Your task to perform on an android device: Go to Yahoo.com Image 0: 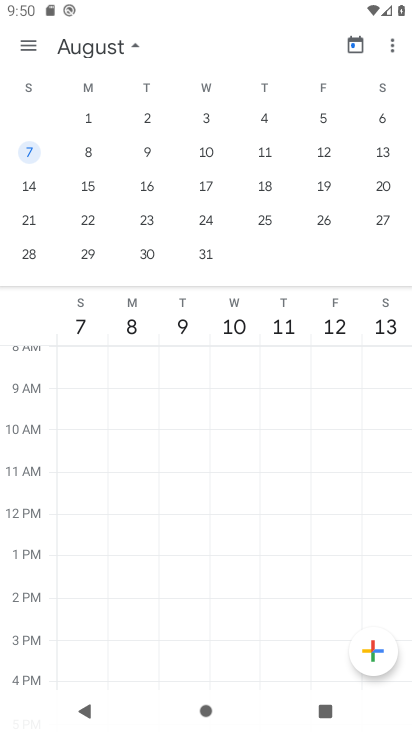
Step 0: press home button
Your task to perform on an android device: Go to Yahoo.com Image 1: 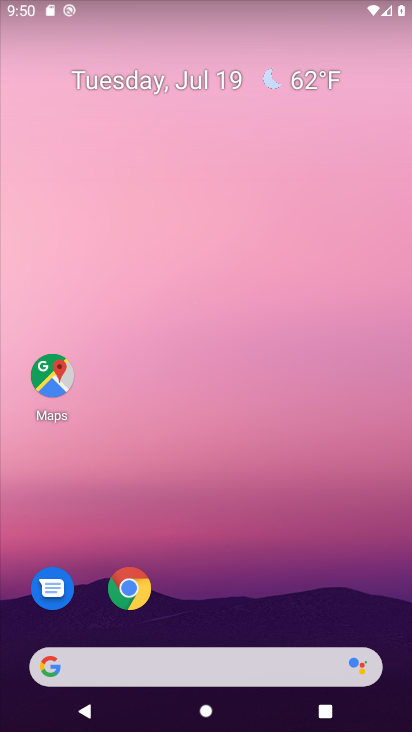
Step 1: click (137, 580)
Your task to perform on an android device: Go to Yahoo.com Image 2: 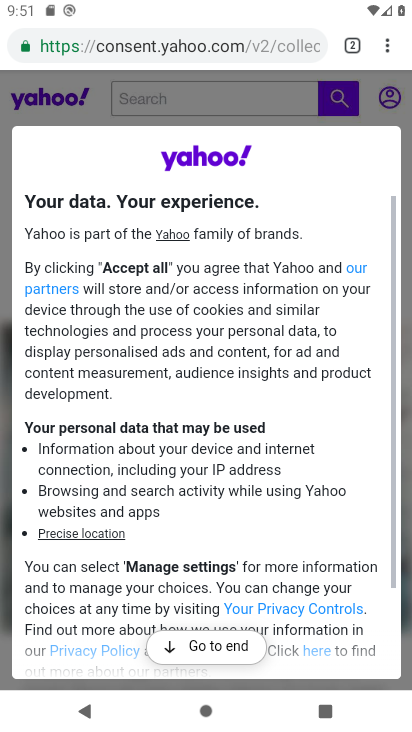
Step 2: task complete